Your task to perform on an android device: Open Google Image 0: 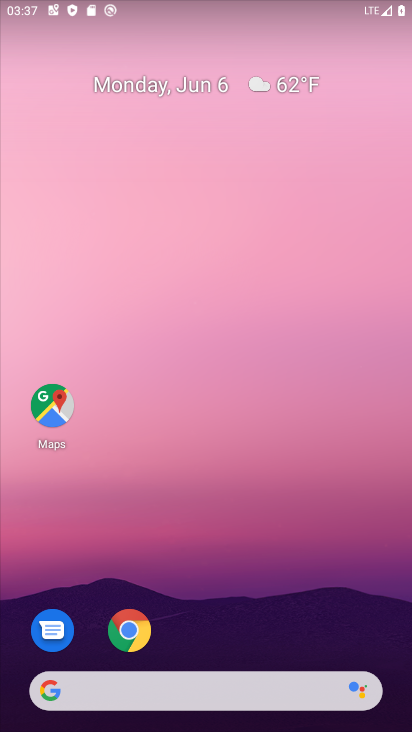
Step 0: press home button
Your task to perform on an android device: Open Google Image 1: 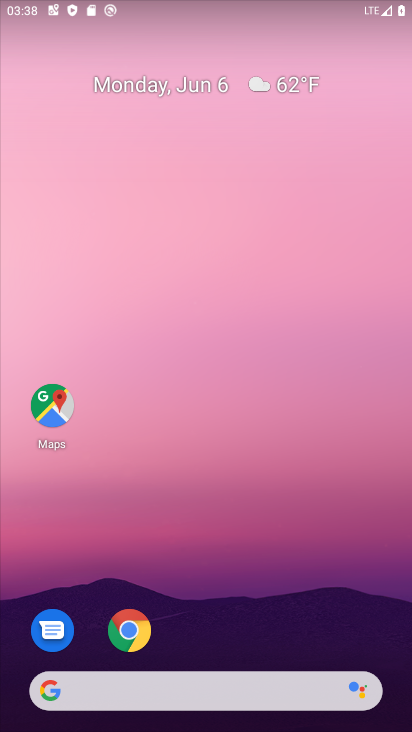
Step 1: drag from (225, 636) to (211, 8)
Your task to perform on an android device: Open Google Image 2: 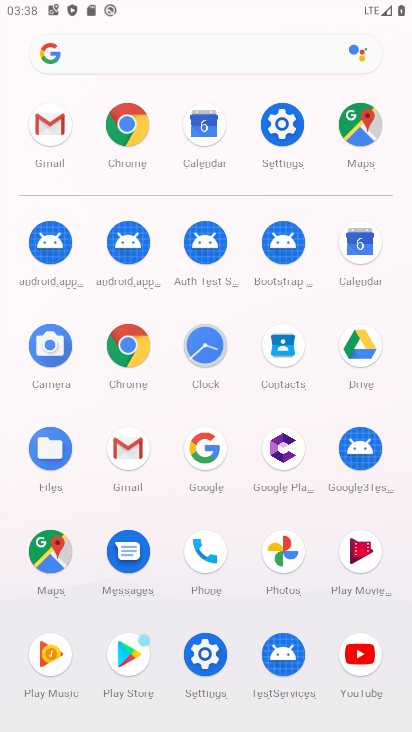
Step 2: click (196, 455)
Your task to perform on an android device: Open Google Image 3: 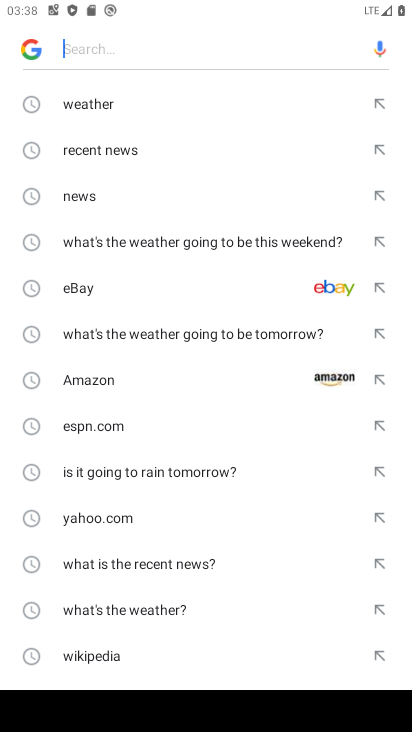
Step 3: task complete